Your task to perform on an android device: turn vacation reply on in the gmail app Image 0: 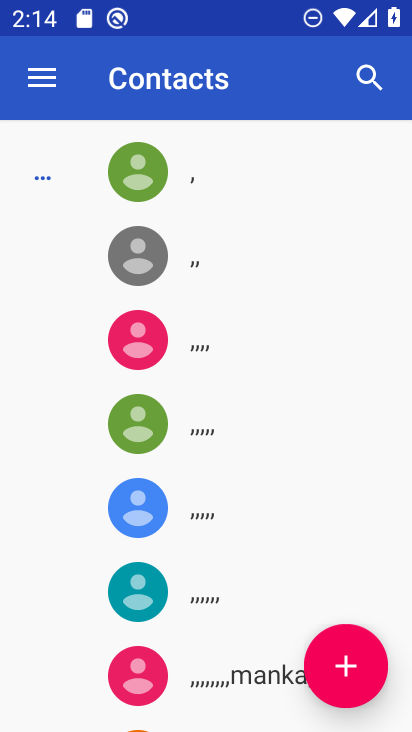
Step 0: press home button
Your task to perform on an android device: turn vacation reply on in the gmail app Image 1: 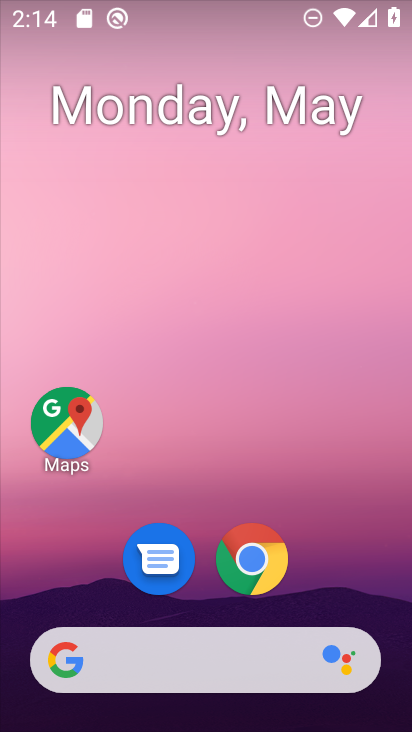
Step 1: drag from (380, 627) to (394, 44)
Your task to perform on an android device: turn vacation reply on in the gmail app Image 2: 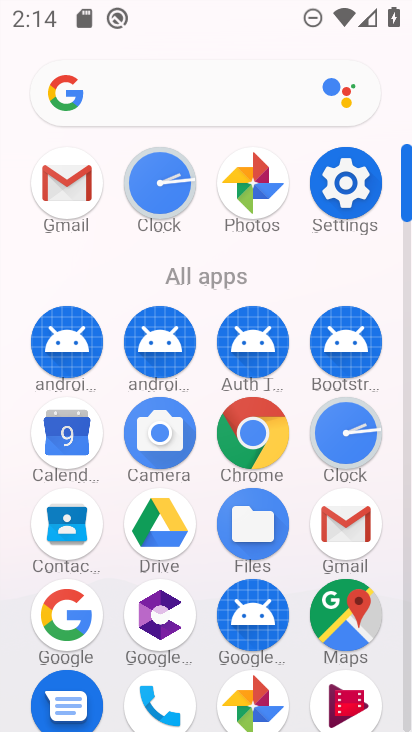
Step 2: click (60, 180)
Your task to perform on an android device: turn vacation reply on in the gmail app Image 3: 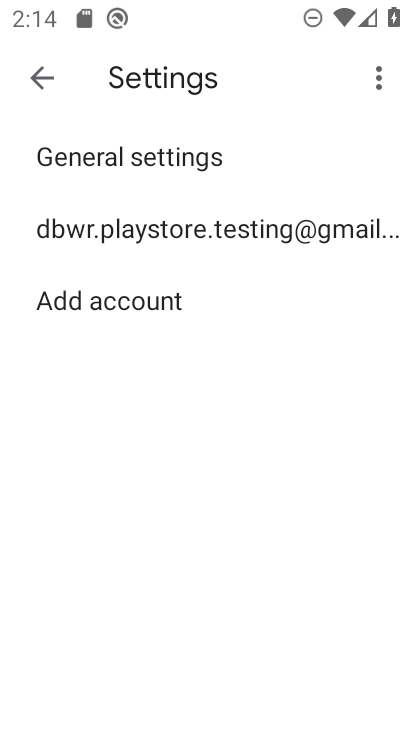
Step 3: click (116, 227)
Your task to perform on an android device: turn vacation reply on in the gmail app Image 4: 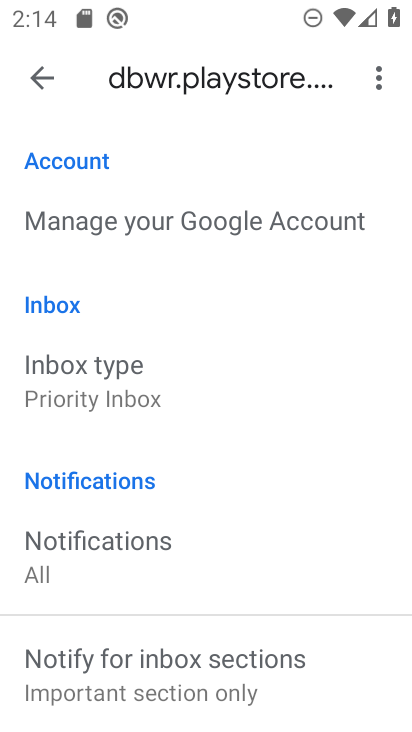
Step 4: drag from (226, 545) to (243, 152)
Your task to perform on an android device: turn vacation reply on in the gmail app Image 5: 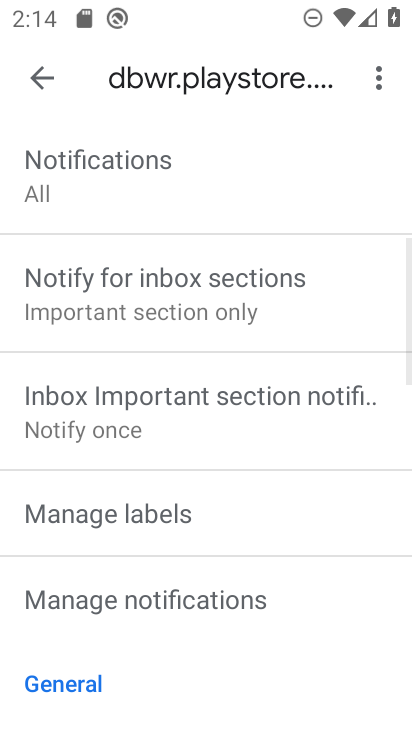
Step 5: drag from (172, 630) to (192, 222)
Your task to perform on an android device: turn vacation reply on in the gmail app Image 6: 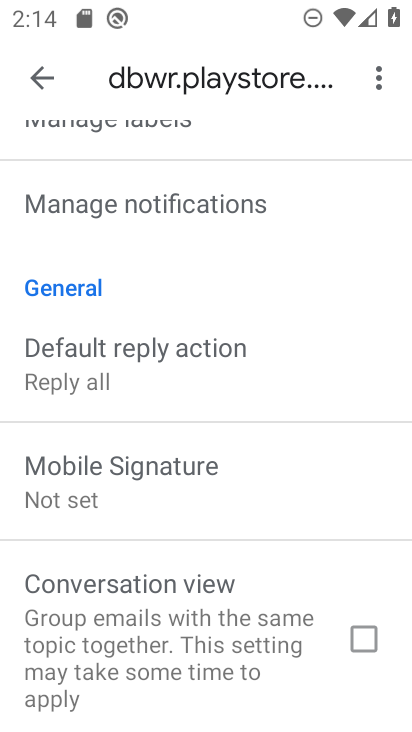
Step 6: drag from (154, 602) to (166, 192)
Your task to perform on an android device: turn vacation reply on in the gmail app Image 7: 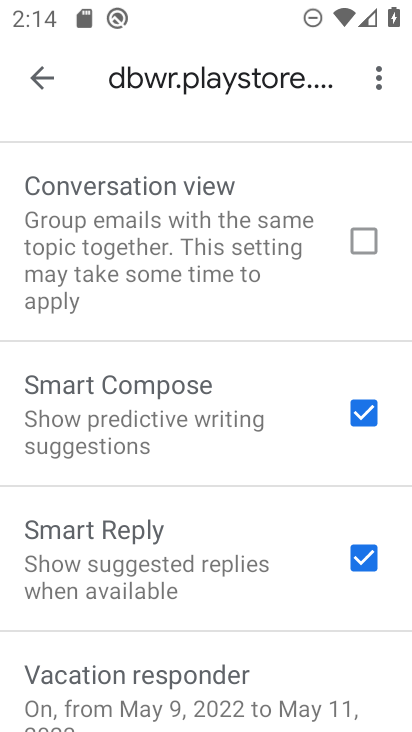
Step 7: drag from (128, 594) to (154, 274)
Your task to perform on an android device: turn vacation reply on in the gmail app Image 8: 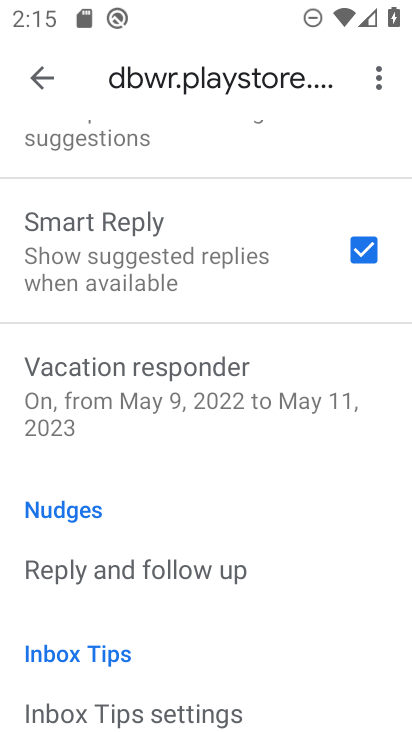
Step 8: click (134, 386)
Your task to perform on an android device: turn vacation reply on in the gmail app Image 9: 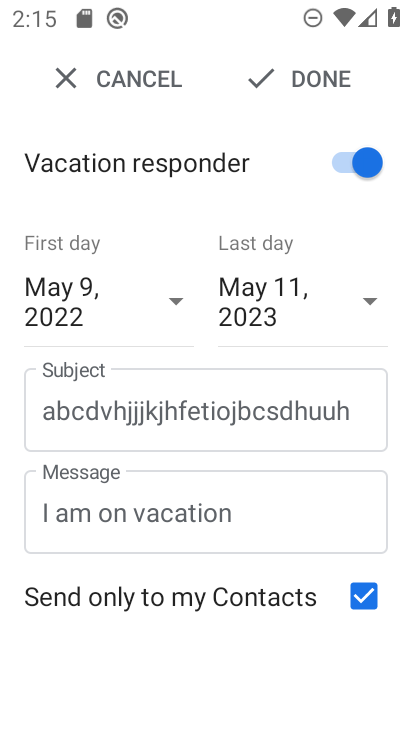
Step 9: click (298, 91)
Your task to perform on an android device: turn vacation reply on in the gmail app Image 10: 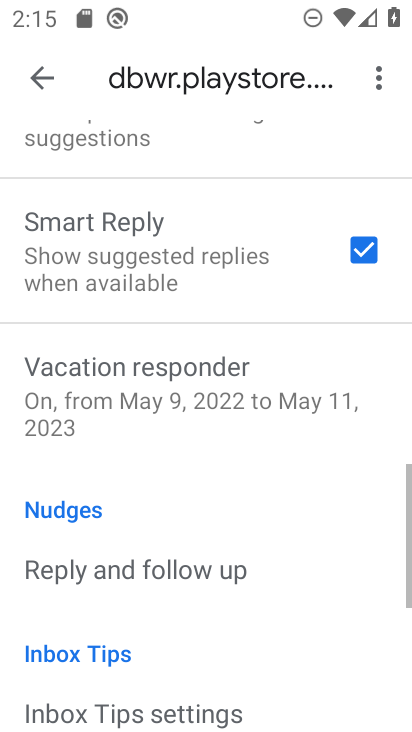
Step 10: task complete